Your task to perform on an android device: turn off smart reply in the gmail app Image 0: 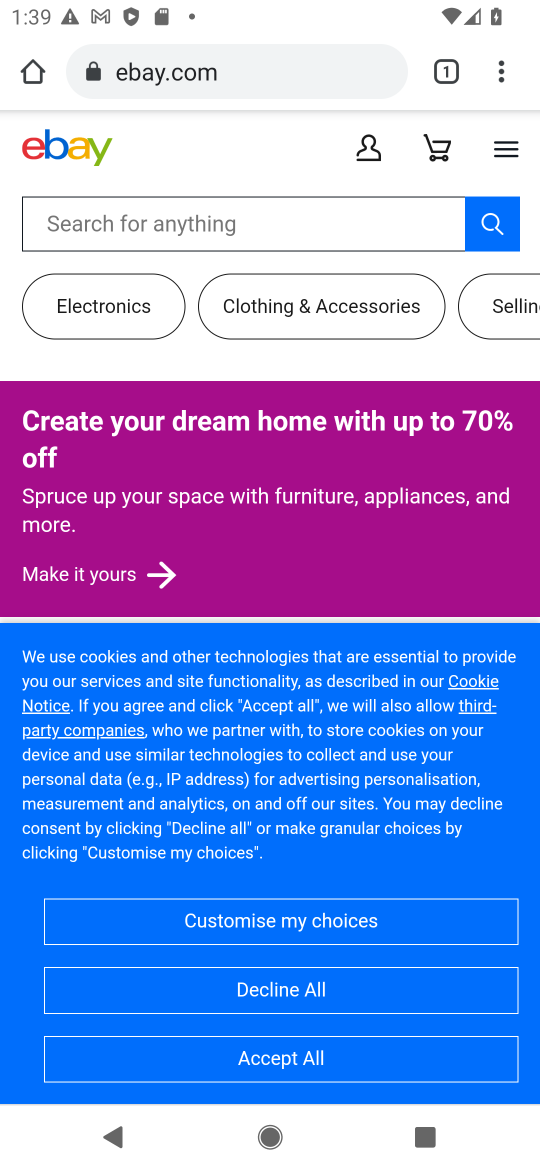
Step 0: press home button
Your task to perform on an android device: turn off smart reply in the gmail app Image 1: 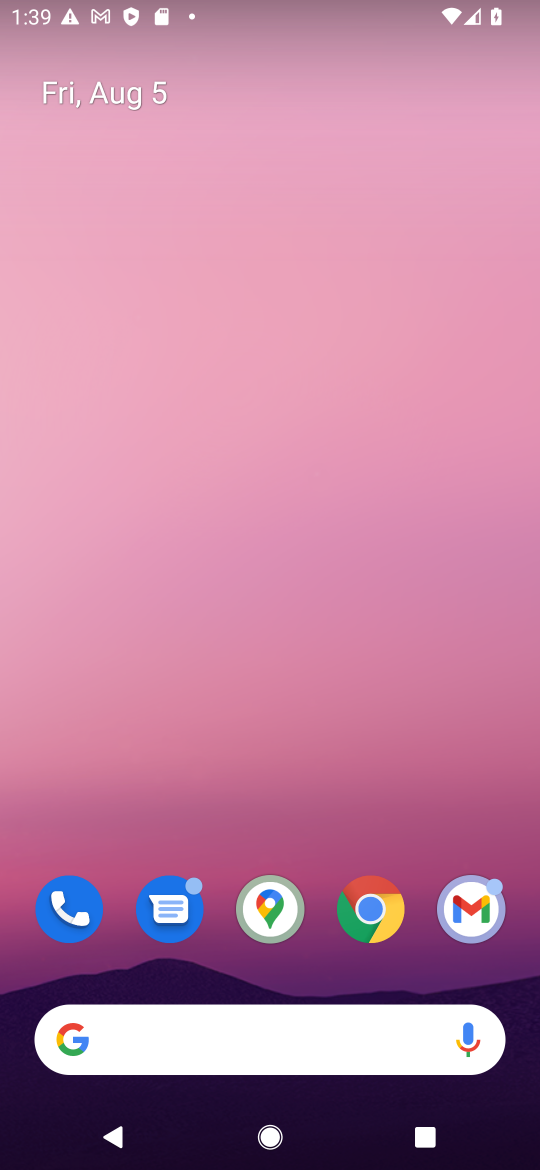
Step 1: click (469, 900)
Your task to perform on an android device: turn off smart reply in the gmail app Image 2: 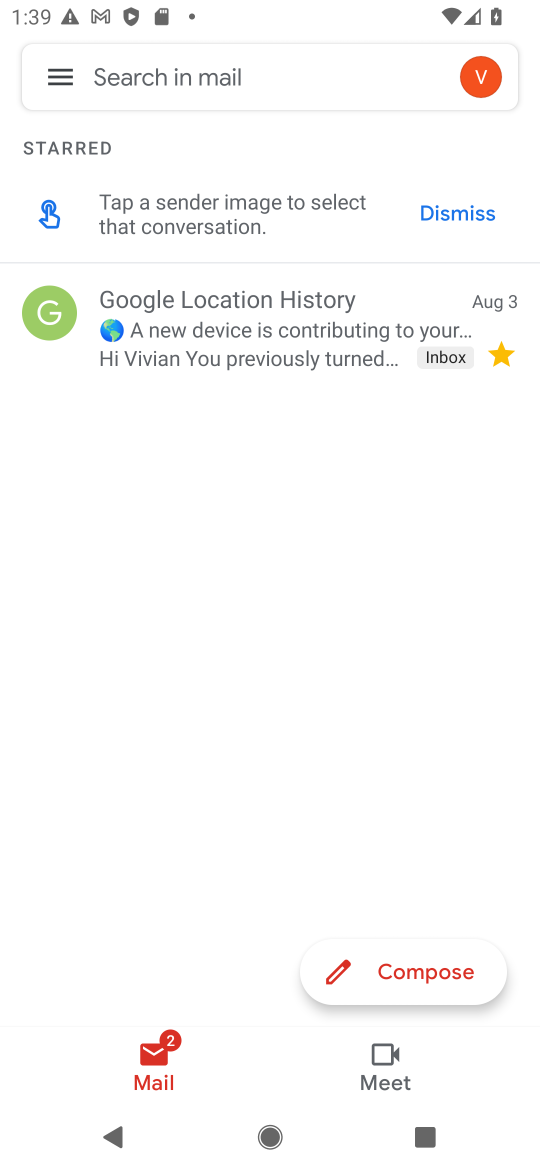
Step 2: click (54, 73)
Your task to perform on an android device: turn off smart reply in the gmail app Image 3: 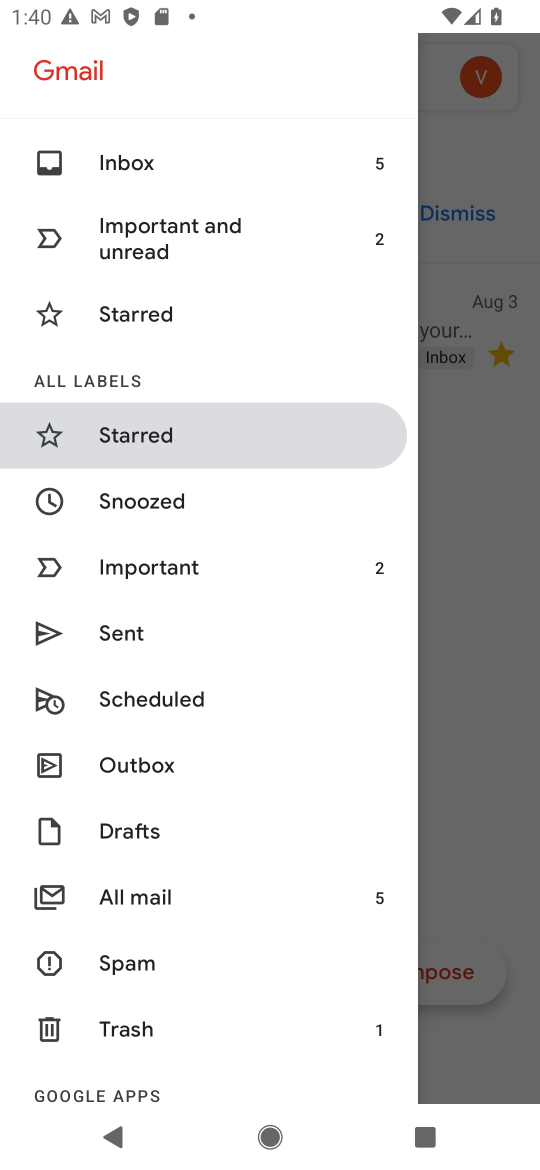
Step 3: drag from (206, 945) to (336, 59)
Your task to perform on an android device: turn off smart reply in the gmail app Image 4: 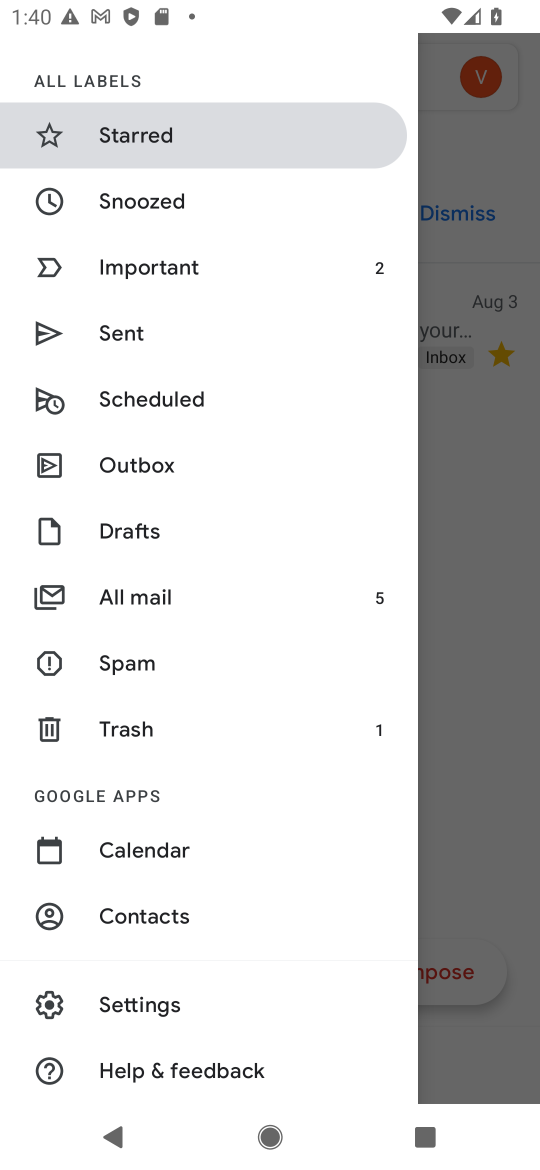
Step 4: click (136, 1000)
Your task to perform on an android device: turn off smart reply in the gmail app Image 5: 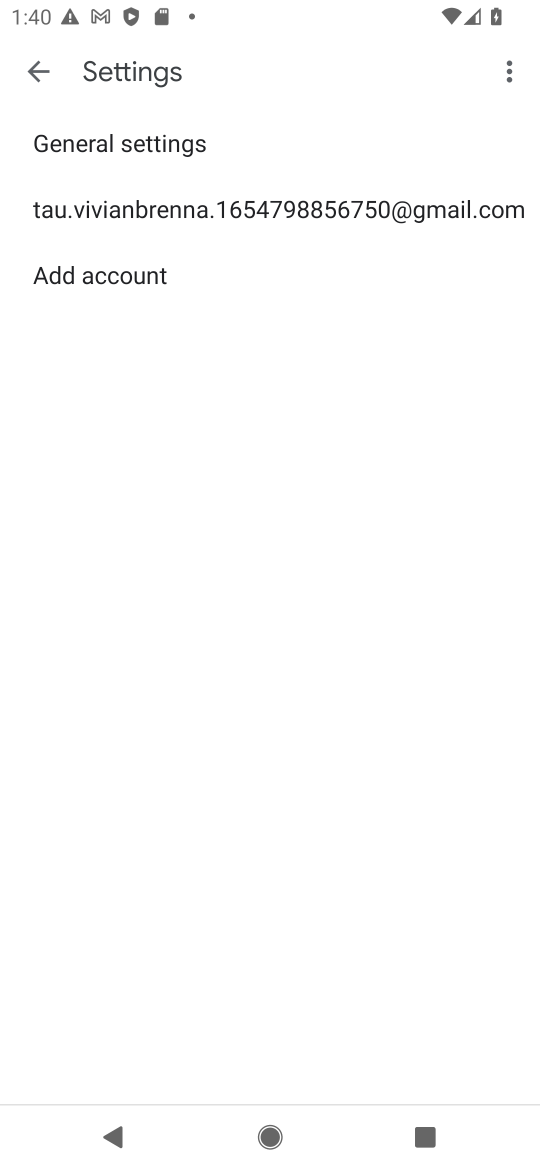
Step 5: click (104, 208)
Your task to perform on an android device: turn off smart reply in the gmail app Image 6: 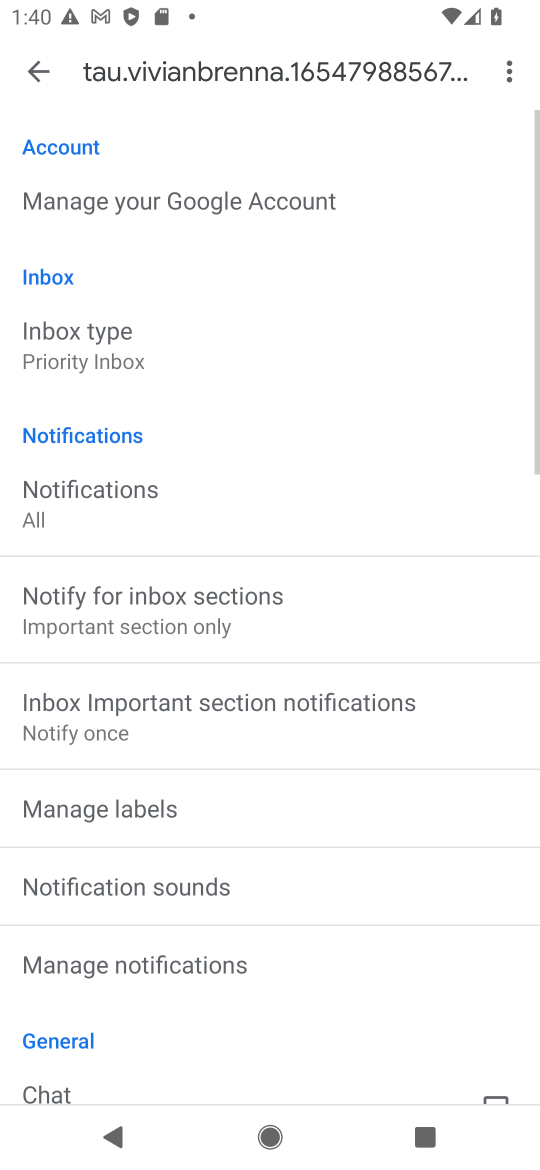
Step 6: drag from (245, 996) to (277, 30)
Your task to perform on an android device: turn off smart reply in the gmail app Image 7: 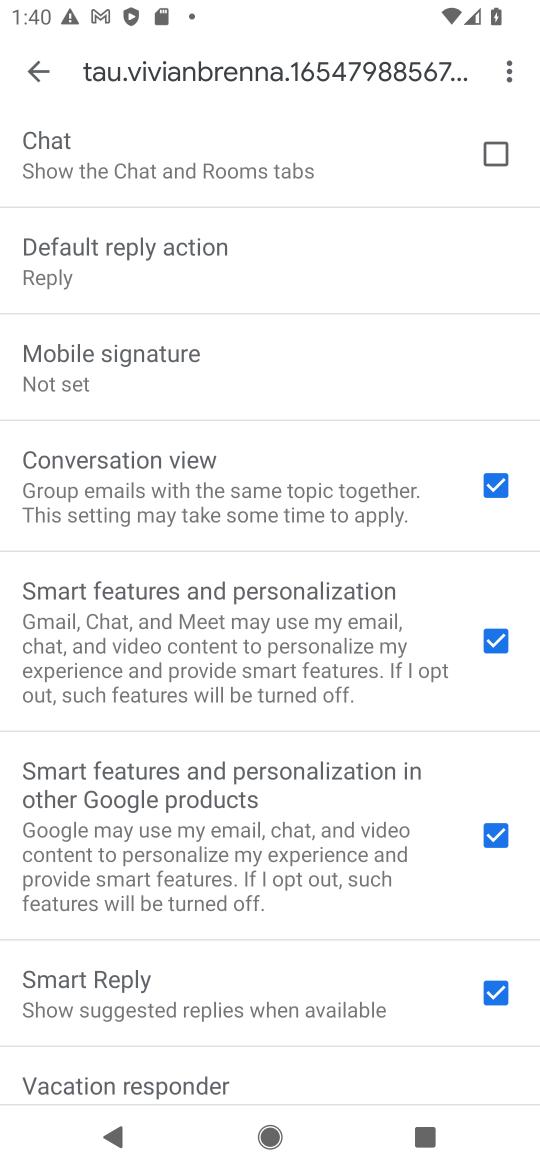
Step 7: click (499, 986)
Your task to perform on an android device: turn off smart reply in the gmail app Image 8: 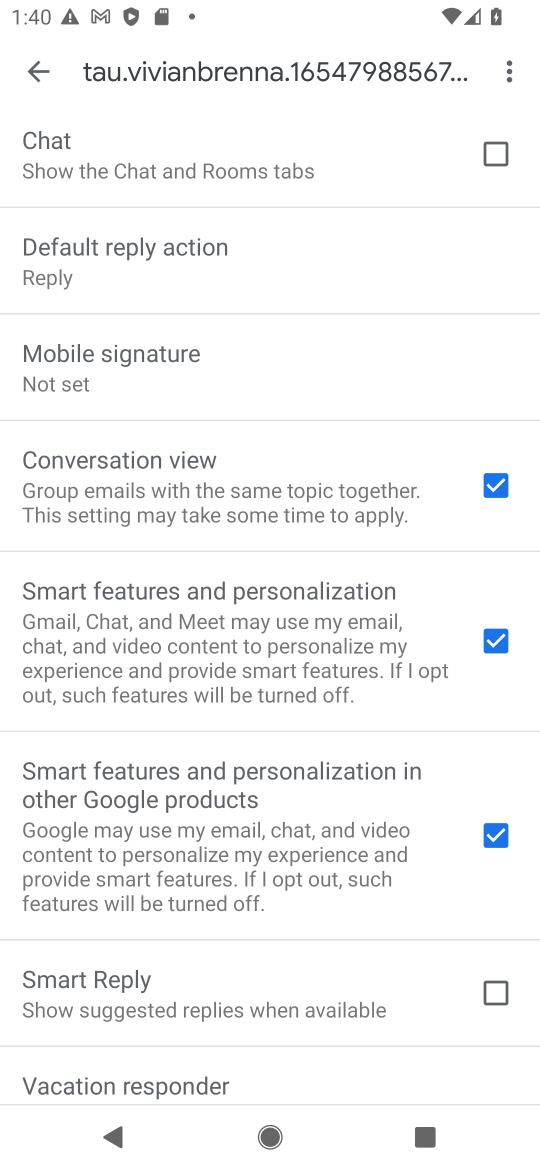
Step 8: task complete